Your task to perform on an android device: Set the phone to "Do not disturb". Image 0: 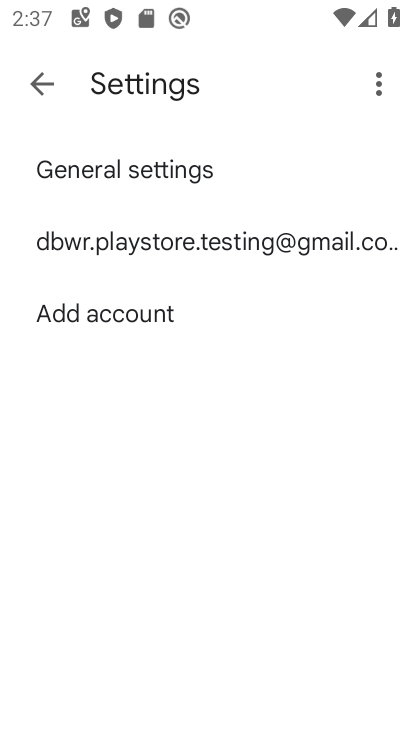
Step 0: press home button
Your task to perform on an android device: Set the phone to "Do not disturb". Image 1: 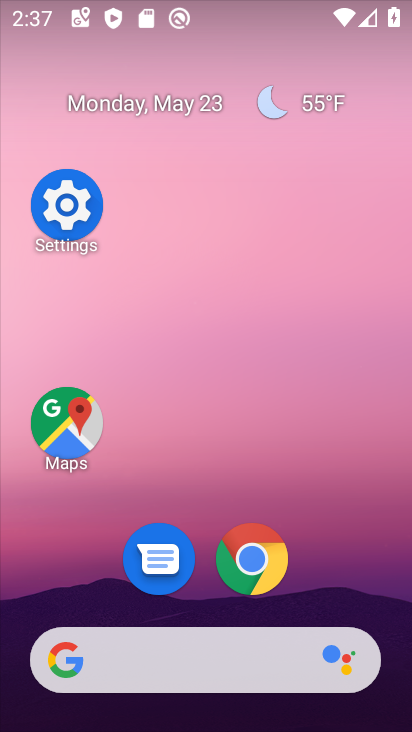
Step 1: click (76, 211)
Your task to perform on an android device: Set the phone to "Do not disturb". Image 2: 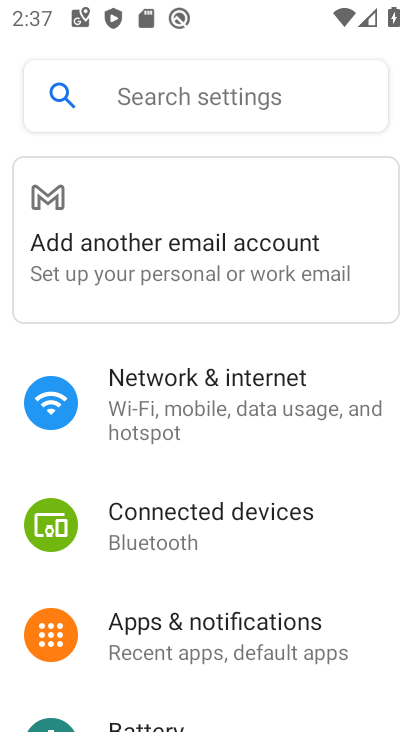
Step 2: drag from (232, 599) to (256, 137)
Your task to perform on an android device: Set the phone to "Do not disturb". Image 3: 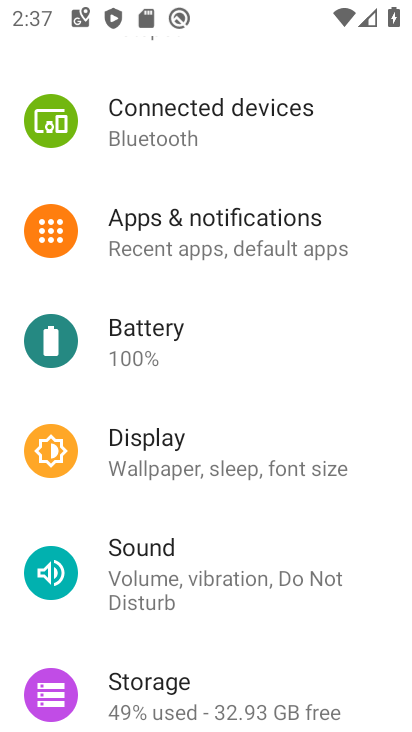
Step 3: click (216, 564)
Your task to perform on an android device: Set the phone to "Do not disturb". Image 4: 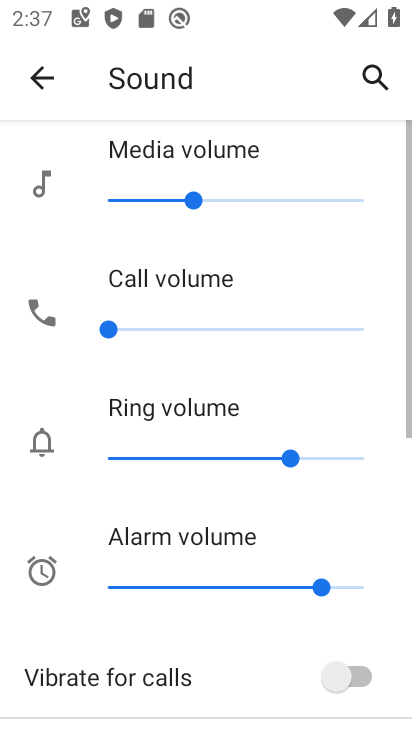
Step 4: drag from (217, 564) to (246, 139)
Your task to perform on an android device: Set the phone to "Do not disturb". Image 5: 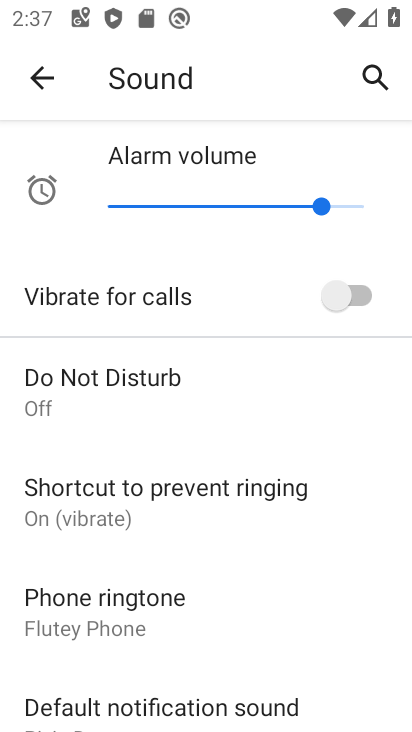
Step 5: click (166, 412)
Your task to perform on an android device: Set the phone to "Do not disturb". Image 6: 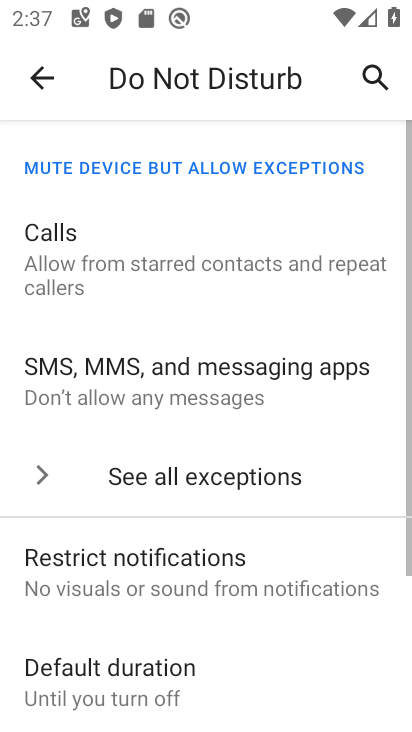
Step 6: drag from (170, 615) to (193, 208)
Your task to perform on an android device: Set the phone to "Do not disturb". Image 7: 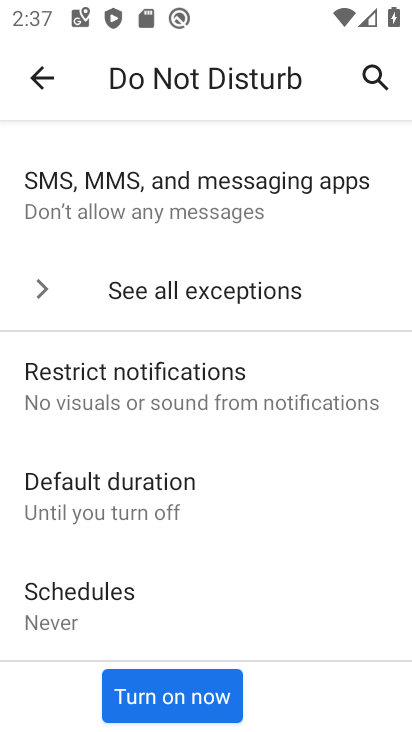
Step 7: click (157, 689)
Your task to perform on an android device: Set the phone to "Do not disturb". Image 8: 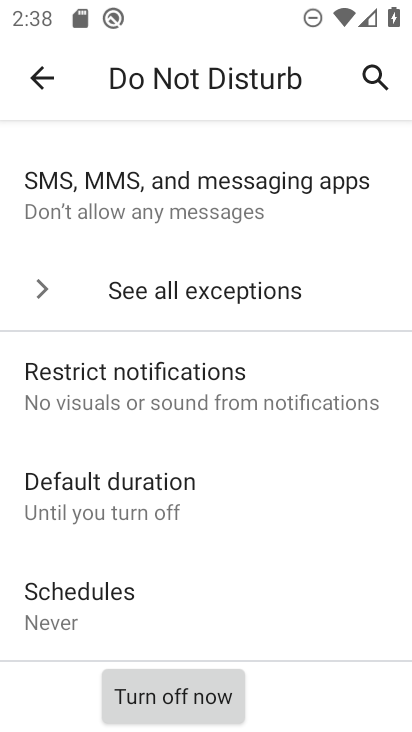
Step 8: task complete